Your task to perform on an android device: find photos in the google photos app Image 0: 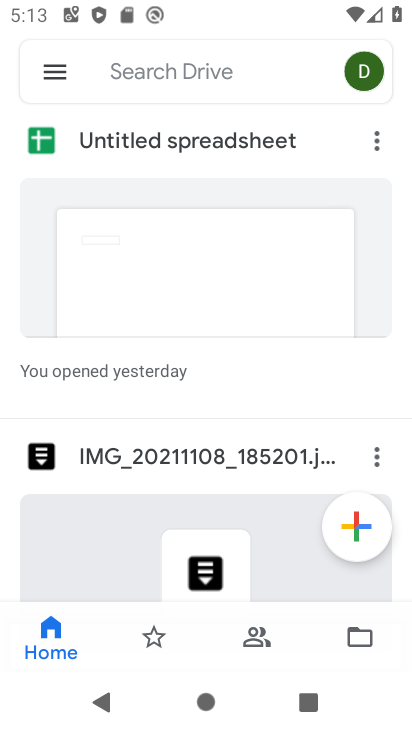
Step 0: press home button
Your task to perform on an android device: find photos in the google photos app Image 1: 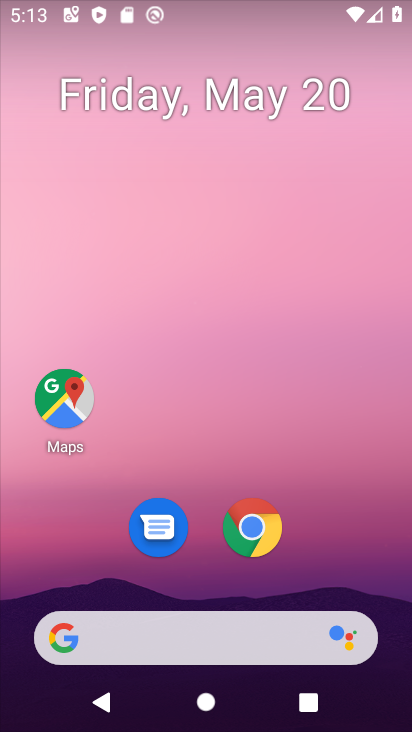
Step 1: drag from (306, 535) to (326, 56)
Your task to perform on an android device: find photos in the google photos app Image 2: 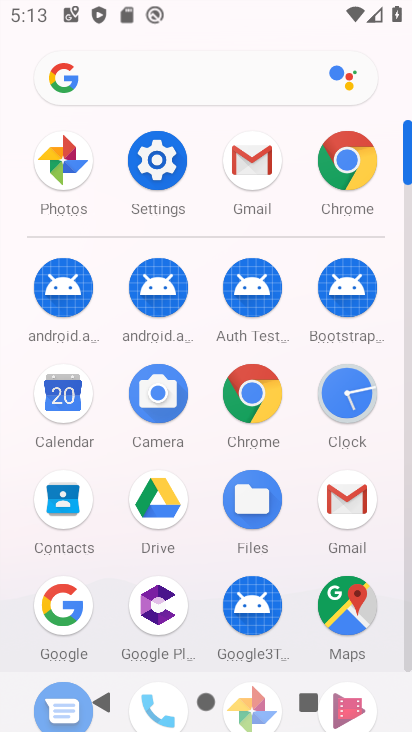
Step 2: drag from (306, 625) to (315, 230)
Your task to perform on an android device: find photos in the google photos app Image 3: 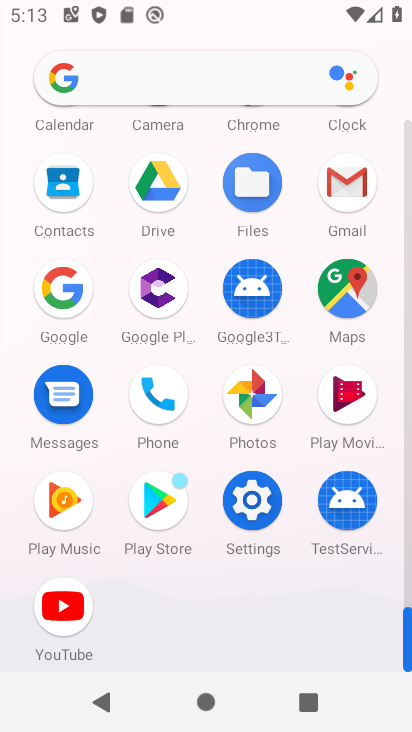
Step 3: click (250, 387)
Your task to perform on an android device: find photos in the google photos app Image 4: 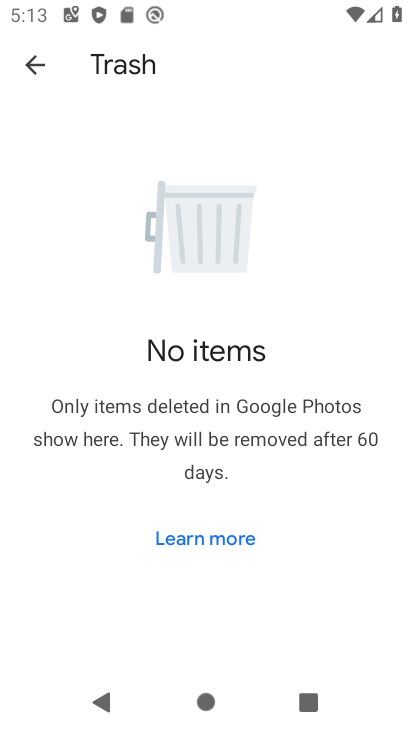
Step 4: task complete